Your task to perform on an android device: remove spam from my inbox in the gmail app Image 0: 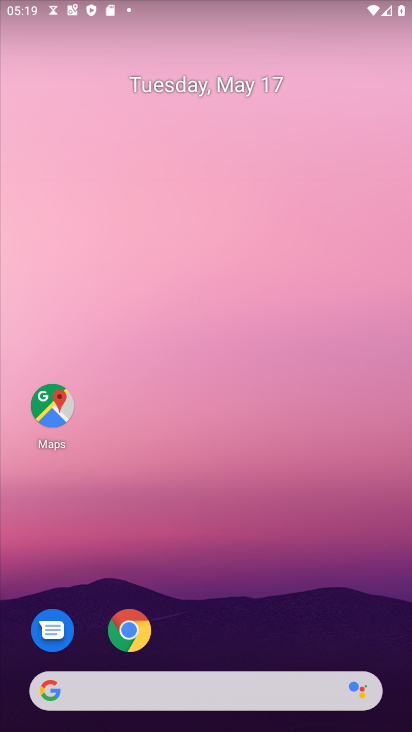
Step 0: drag from (259, 640) to (224, 345)
Your task to perform on an android device: remove spam from my inbox in the gmail app Image 1: 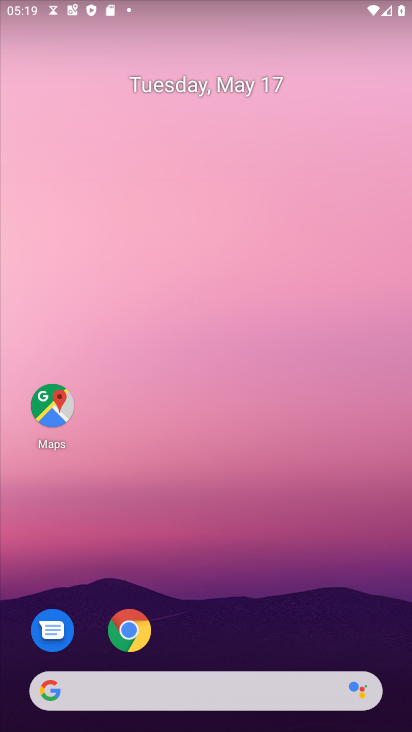
Step 1: drag from (189, 606) to (144, 69)
Your task to perform on an android device: remove spam from my inbox in the gmail app Image 2: 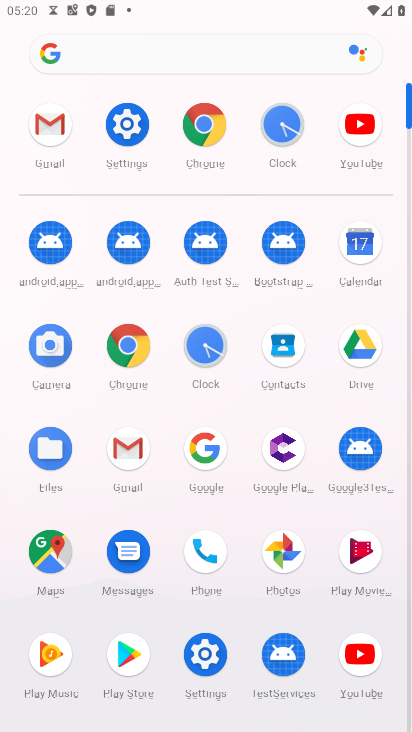
Step 2: click (60, 133)
Your task to perform on an android device: remove spam from my inbox in the gmail app Image 3: 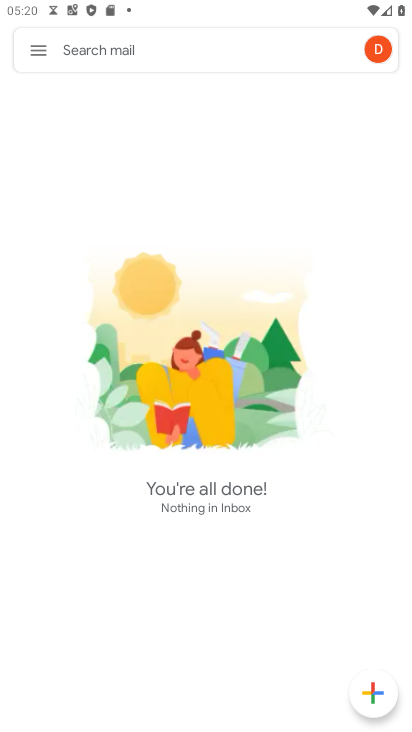
Step 3: click (35, 41)
Your task to perform on an android device: remove spam from my inbox in the gmail app Image 4: 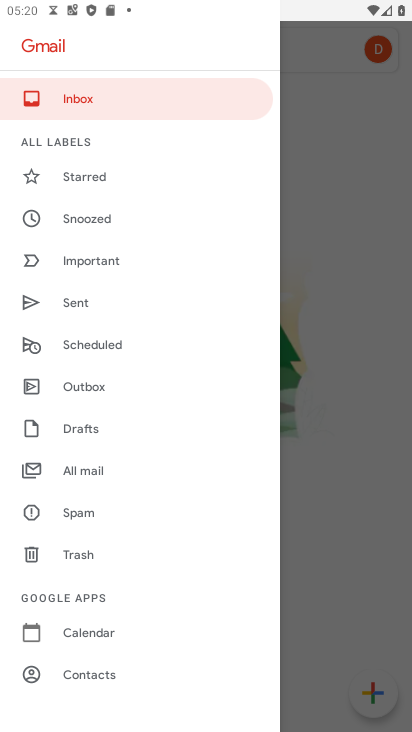
Step 4: click (85, 513)
Your task to perform on an android device: remove spam from my inbox in the gmail app Image 5: 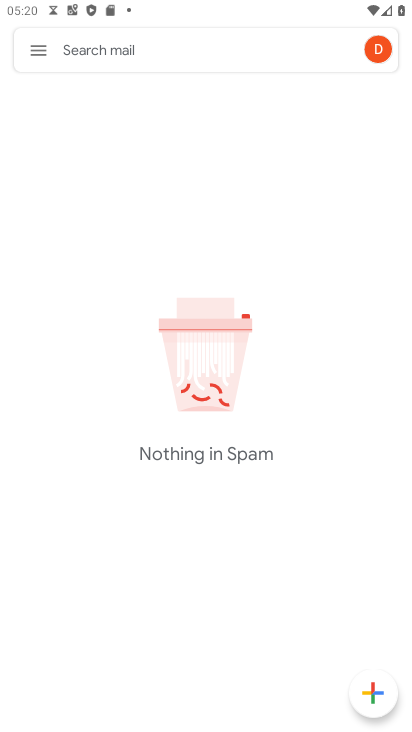
Step 5: task complete